Your task to perform on an android device: Open the map Image 0: 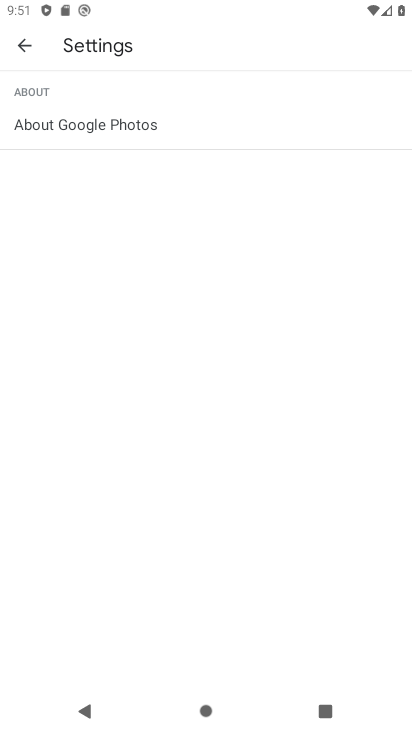
Step 0: press home button
Your task to perform on an android device: Open the map Image 1: 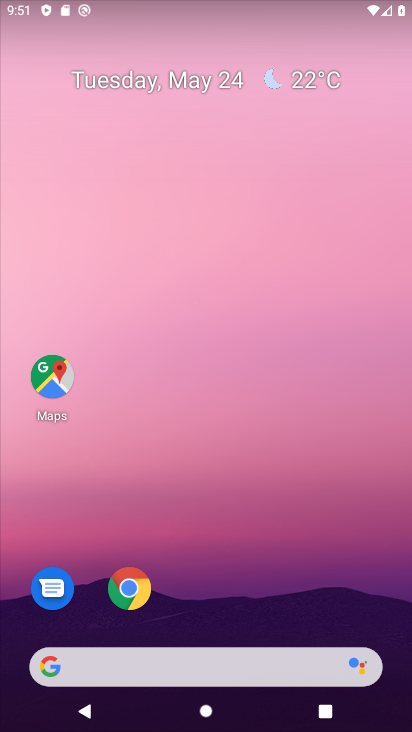
Step 1: click (39, 387)
Your task to perform on an android device: Open the map Image 2: 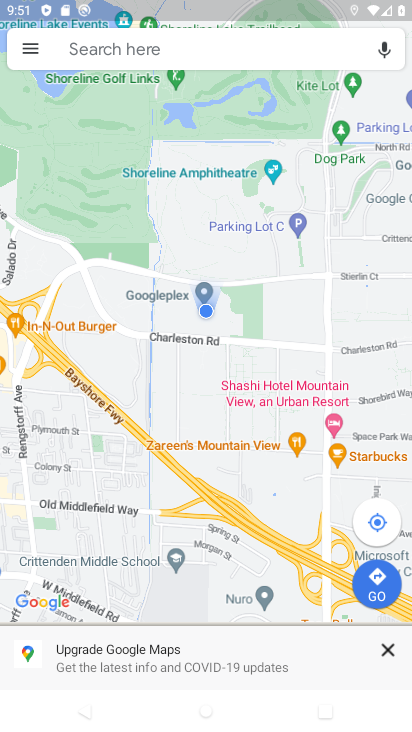
Step 2: task complete